Your task to perform on an android device: Go to battery settings Image 0: 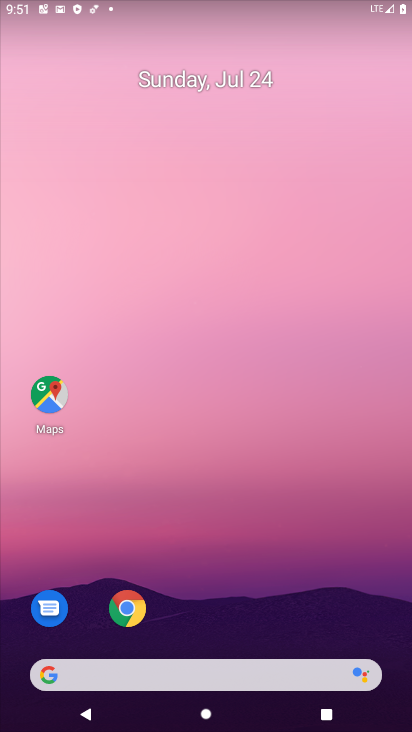
Step 0: drag from (201, 628) to (241, 53)
Your task to perform on an android device: Go to battery settings Image 1: 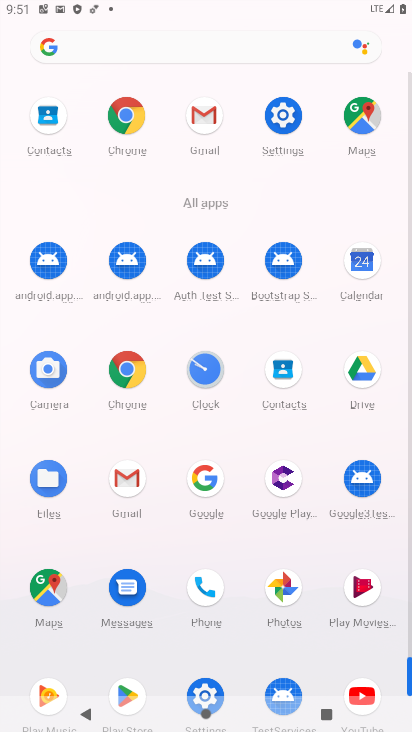
Step 1: click (279, 109)
Your task to perform on an android device: Go to battery settings Image 2: 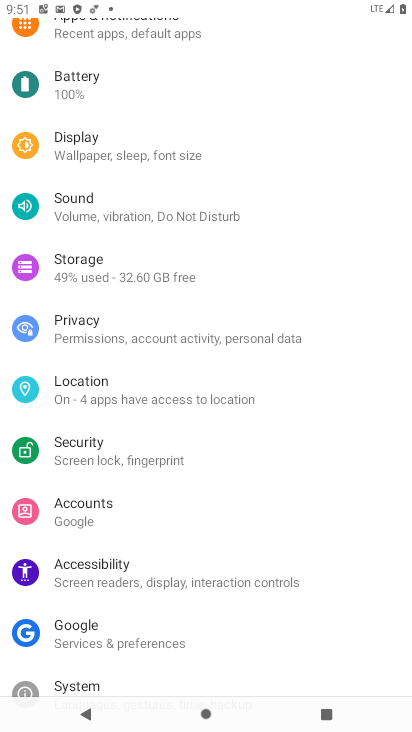
Step 2: click (99, 82)
Your task to perform on an android device: Go to battery settings Image 3: 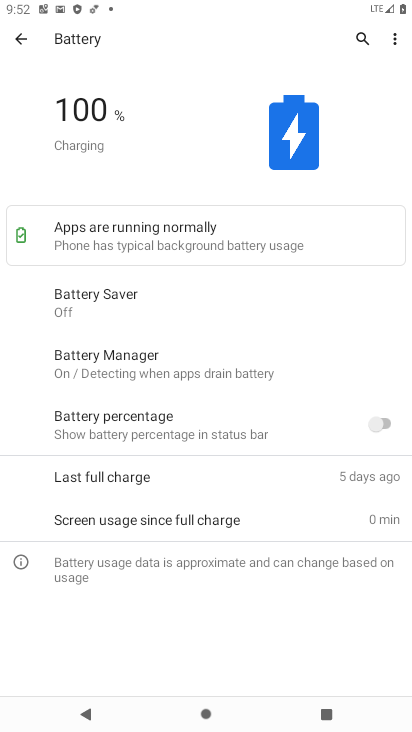
Step 3: task complete